Your task to perform on an android device: Open ESPN.com Image 0: 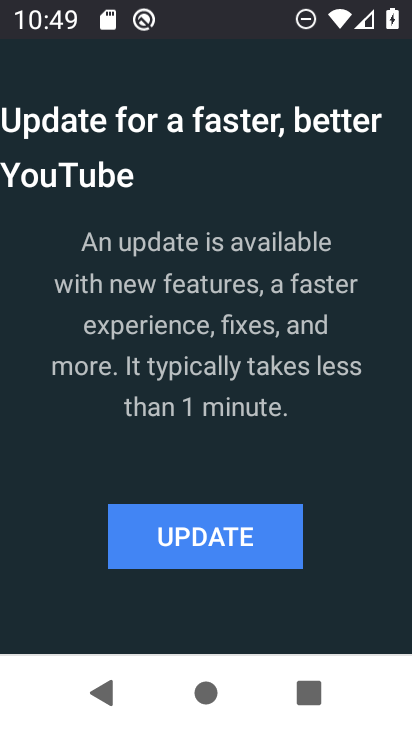
Step 0: press home button
Your task to perform on an android device: Open ESPN.com Image 1: 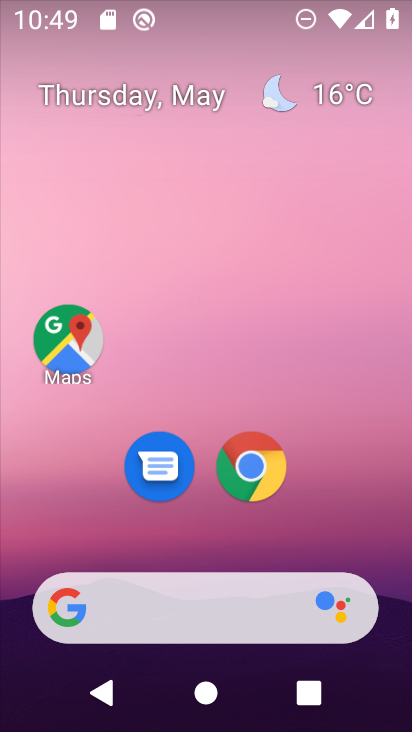
Step 1: click (258, 442)
Your task to perform on an android device: Open ESPN.com Image 2: 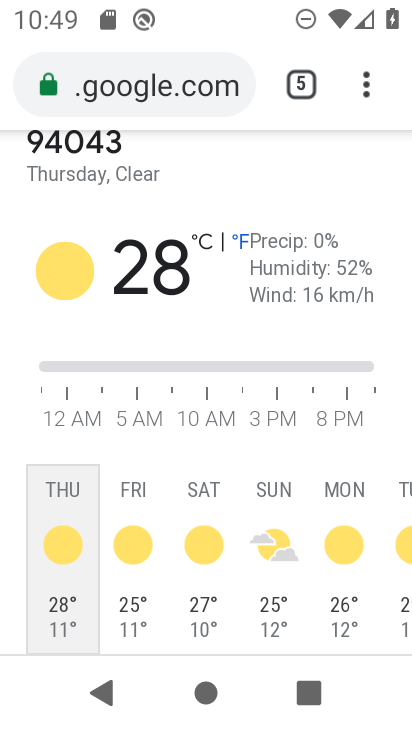
Step 2: click (351, 86)
Your task to perform on an android device: Open ESPN.com Image 3: 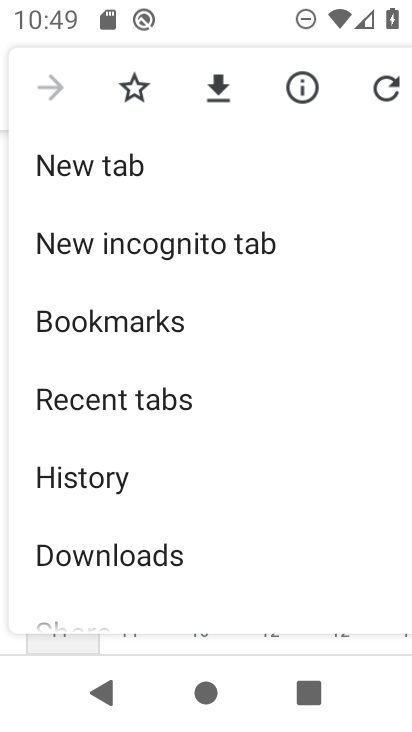
Step 3: click (121, 157)
Your task to perform on an android device: Open ESPN.com Image 4: 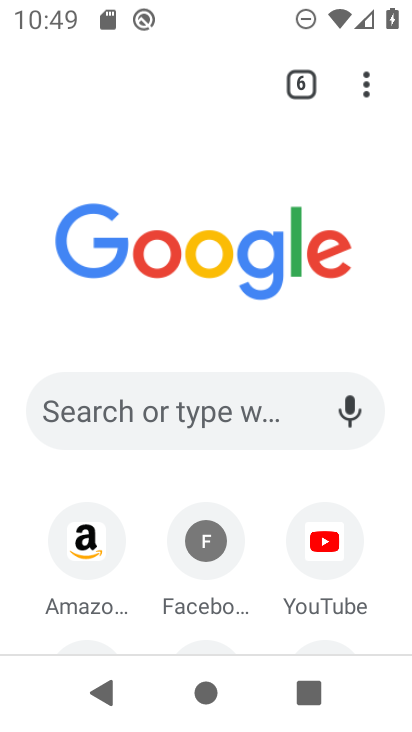
Step 4: drag from (227, 555) to (300, 202)
Your task to perform on an android device: Open ESPN.com Image 5: 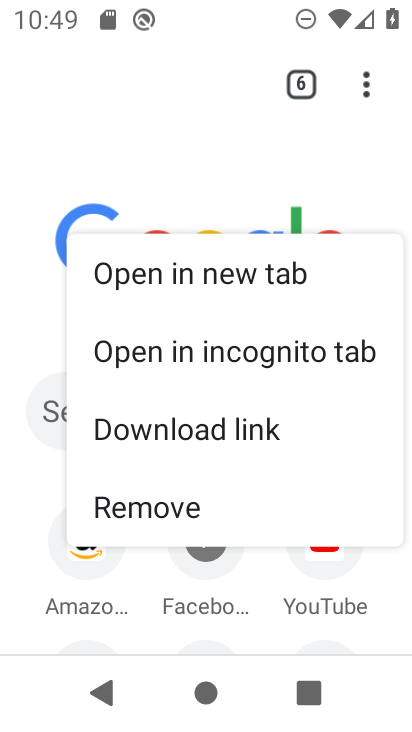
Step 5: click (38, 235)
Your task to perform on an android device: Open ESPN.com Image 6: 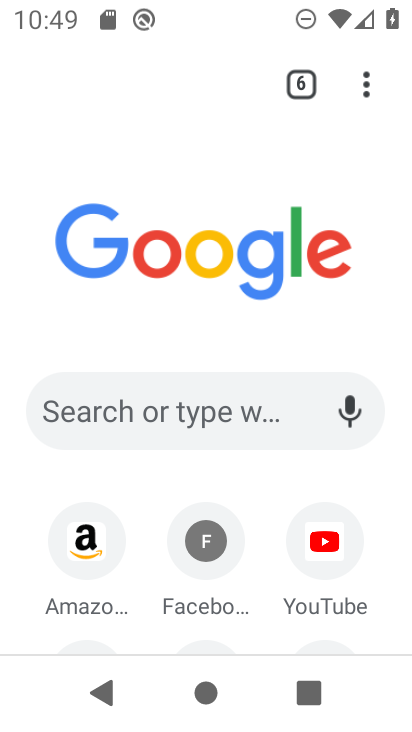
Step 6: drag from (356, 528) to (392, 150)
Your task to perform on an android device: Open ESPN.com Image 7: 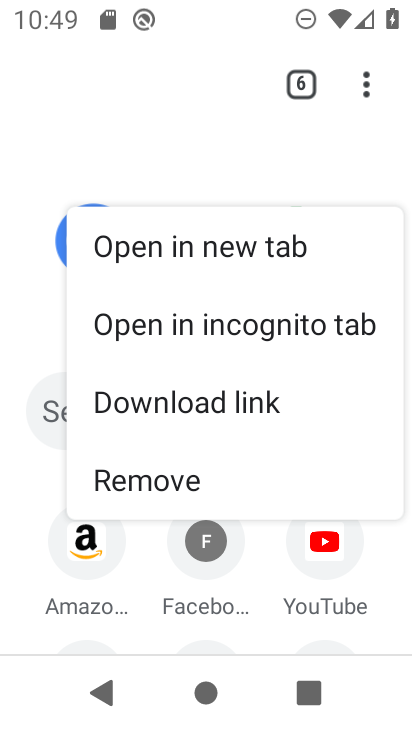
Step 7: drag from (389, 551) to (407, 262)
Your task to perform on an android device: Open ESPN.com Image 8: 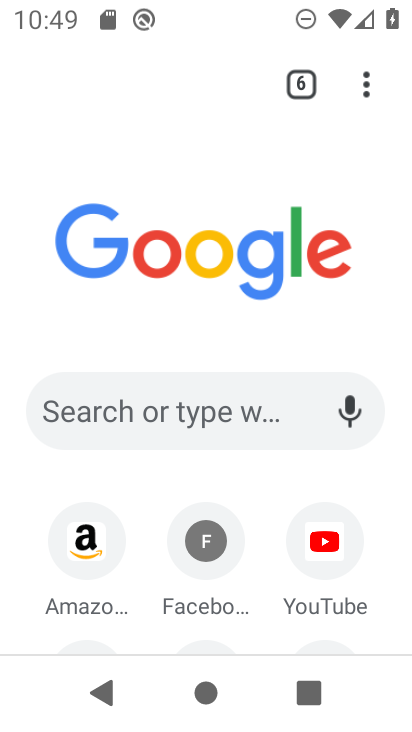
Step 8: drag from (40, 512) to (77, 304)
Your task to perform on an android device: Open ESPN.com Image 9: 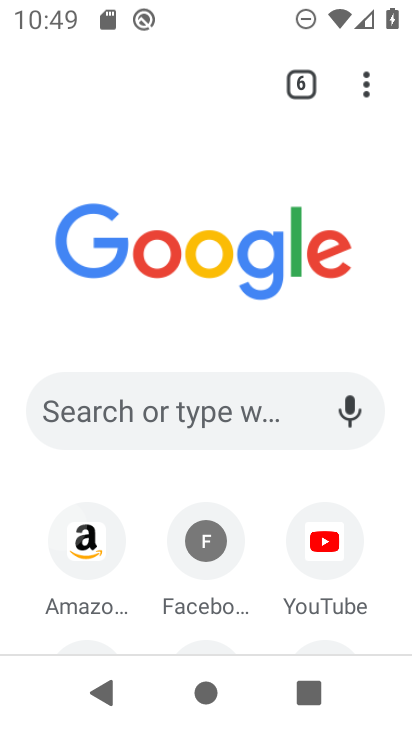
Step 9: drag from (43, 485) to (114, 284)
Your task to perform on an android device: Open ESPN.com Image 10: 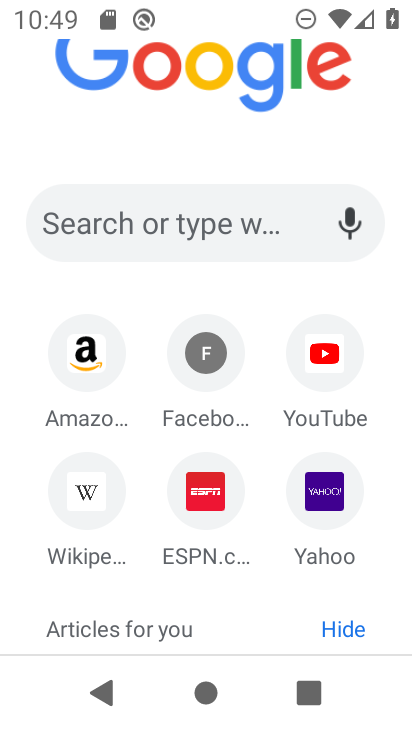
Step 10: drag from (84, 452) to (149, 256)
Your task to perform on an android device: Open ESPN.com Image 11: 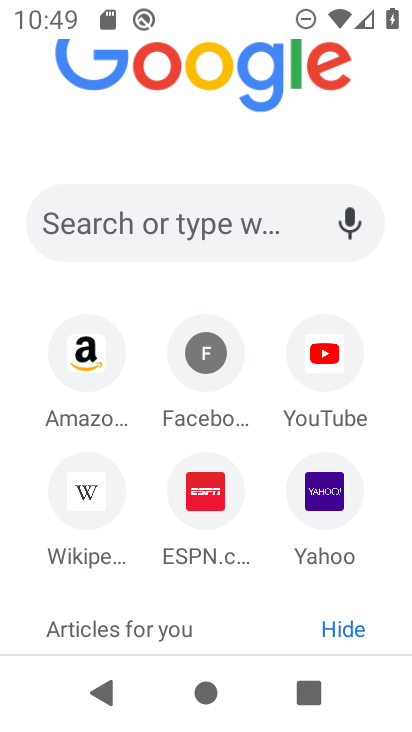
Step 11: click (190, 538)
Your task to perform on an android device: Open ESPN.com Image 12: 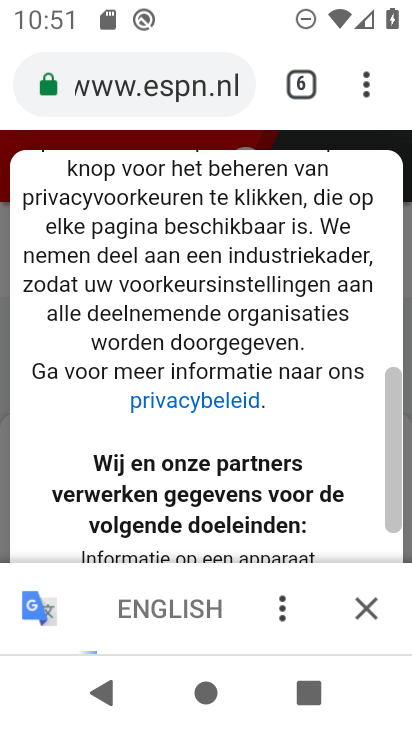
Step 12: task complete